Your task to perform on an android device: check the backup settings in the google photos Image 0: 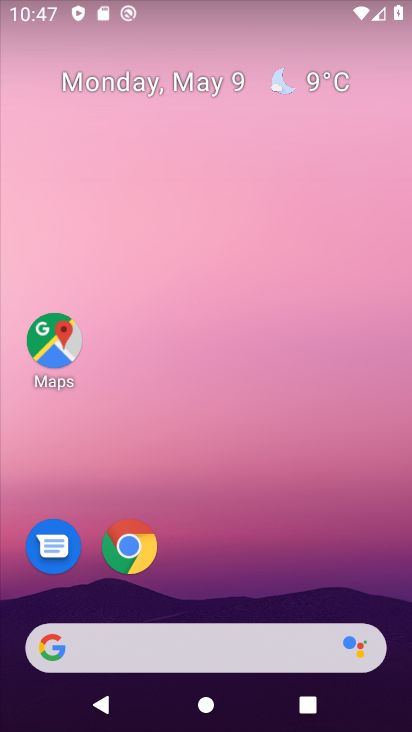
Step 0: drag from (224, 722) to (225, 165)
Your task to perform on an android device: check the backup settings in the google photos Image 1: 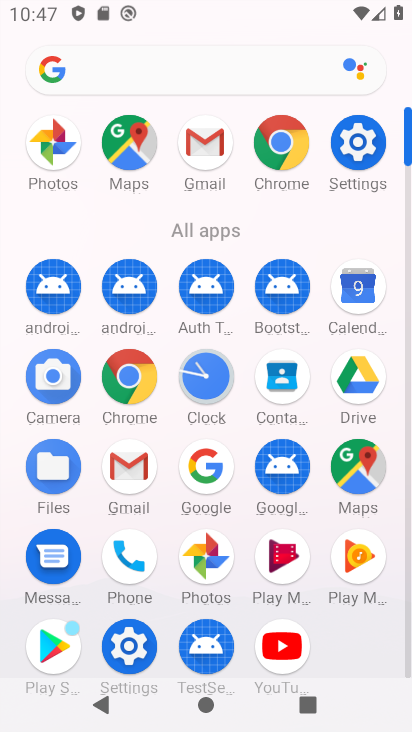
Step 1: click (212, 551)
Your task to perform on an android device: check the backup settings in the google photos Image 2: 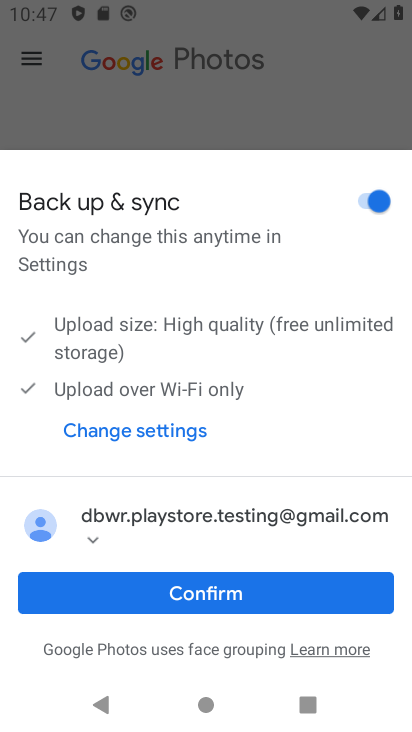
Step 2: click (204, 592)
Your task to perform on an android device: check the backup settings in the google photos Image 3: 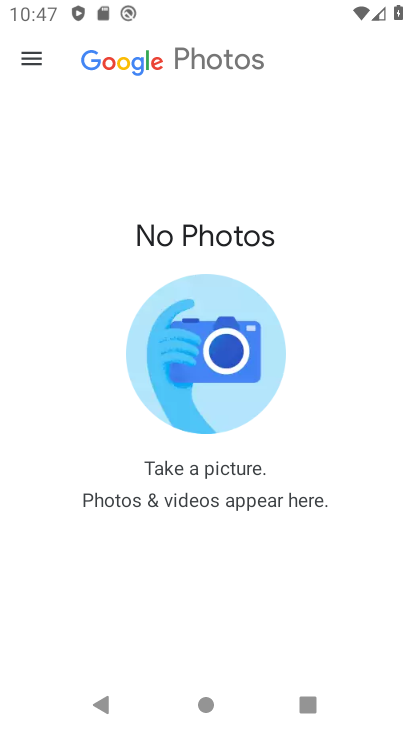
Step 3: click (28, 51)
Your task to perform on an android device: check the backup settings in the google photos Image 4: 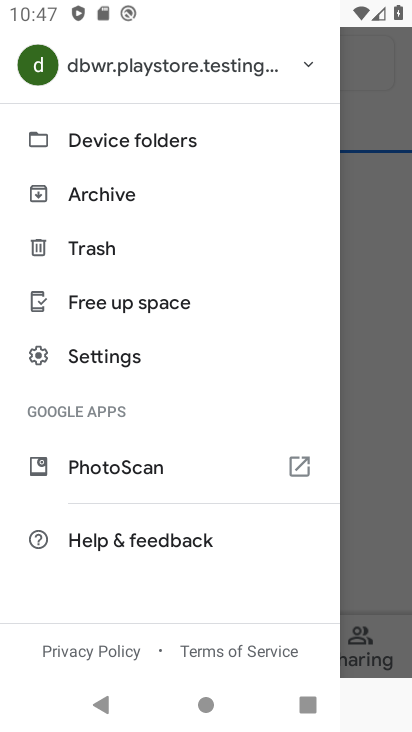
Step 4: click (116, 354)
Your task to perform on an android device: check the backup settings in the google photos Image 5: 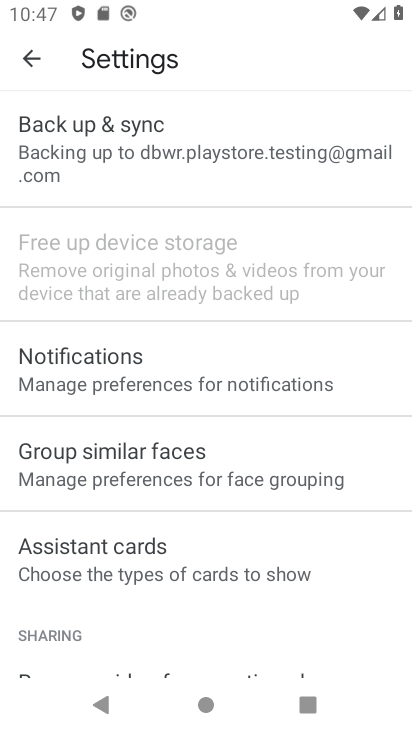
Step 5: click (91, 146)
Your task to perform on an android device: check the backup settings in the google photos Image 6: 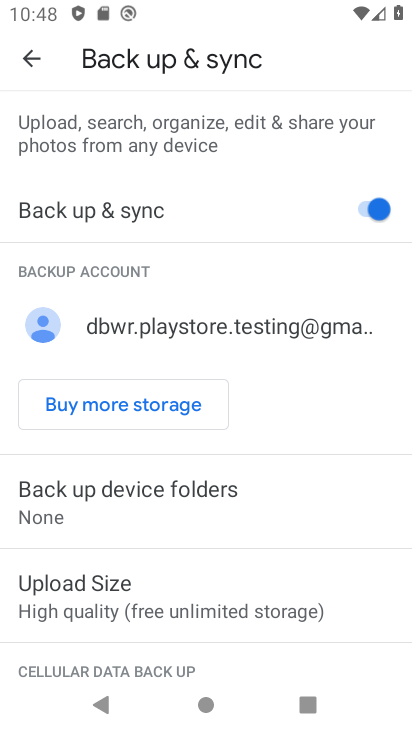
Step 6: task complete